Your task to perform on an android device: What's the weather going to be this weekend? Image 0: 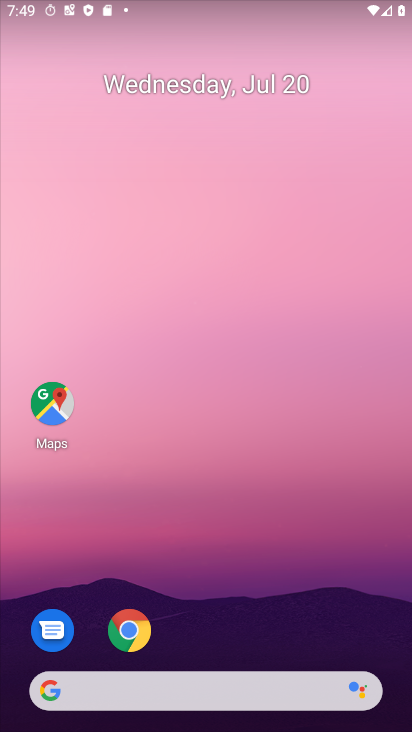
Step 0: drag from (226, 671) to (217, 150)
Your task to perform on an android device: What's the weather going to be this weekend? Image 1: 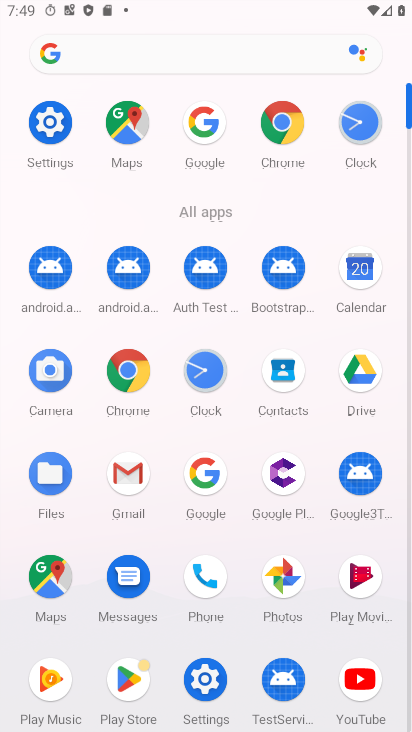
Step 1: click (201, 497)
Your task to perform on an android device: What's the weather going to be this weekend? Image 2: 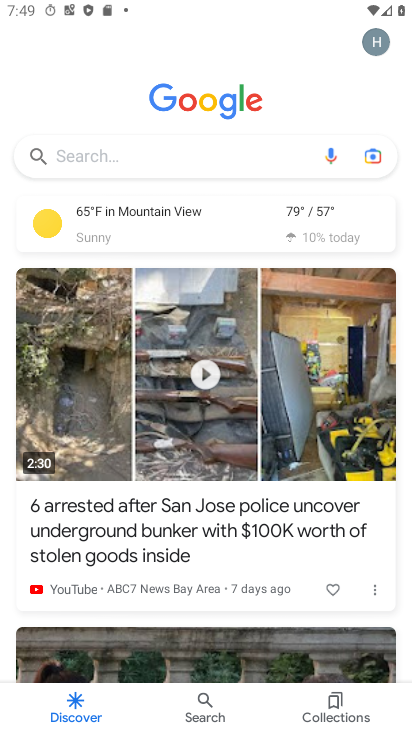
Step 2: click (244, 165)
Your task to perform on an android device: What's the weather going to be this weekend? Image 3: 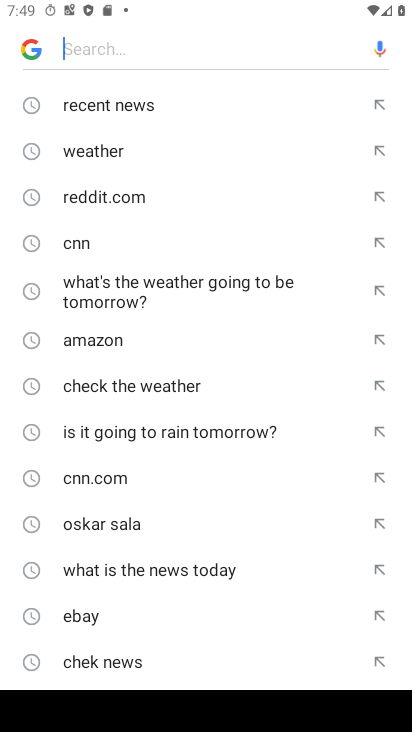
Step 3: click (104, 150)
Your task to perform on an android device: What's the weather going to be this weekend? Image 4: 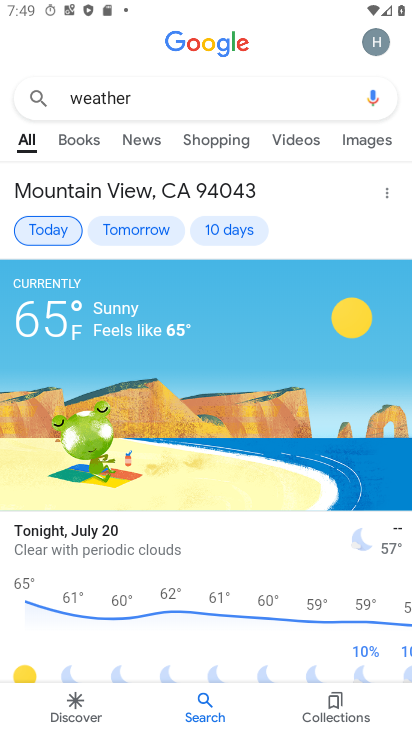
Step 4: click (237, 227)
Your task to perform on an android device: What's the weather going to be this weekend? Image 5: 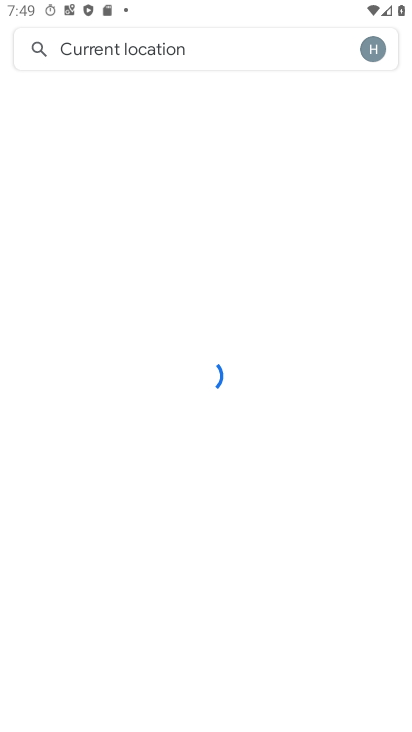
Step 5: click (241, 239)
Your task to perform on an android device: What's the weather going to be this weekend? Image 6: 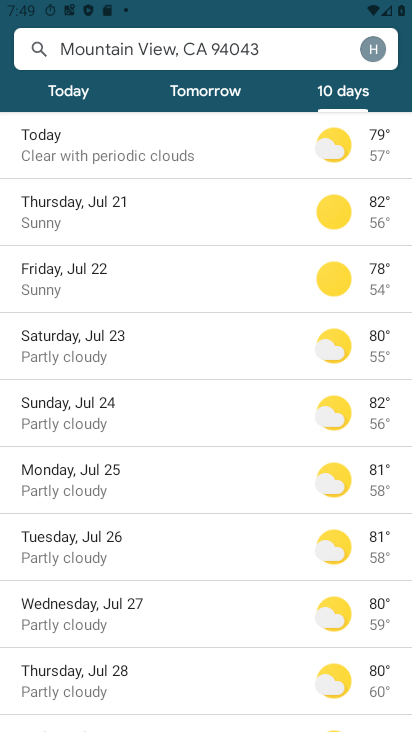
Step 6: task complete